Your task to perform on an android device: Go to Amazon Image 0: 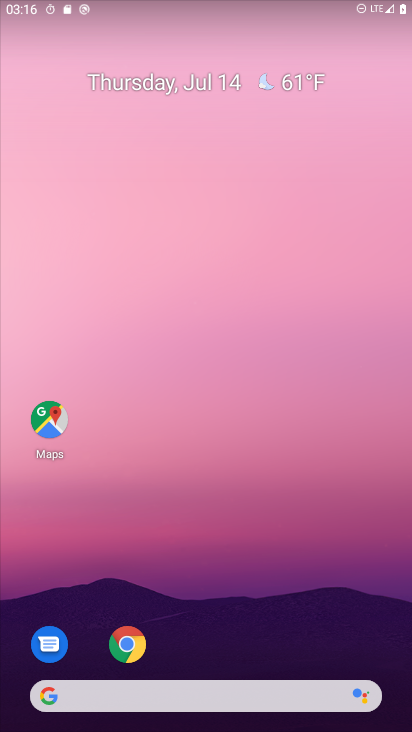
Step 0: drag from (260, 633) to (234, 133)
Your task to perform on an android device: Go to Amazon Image 1: 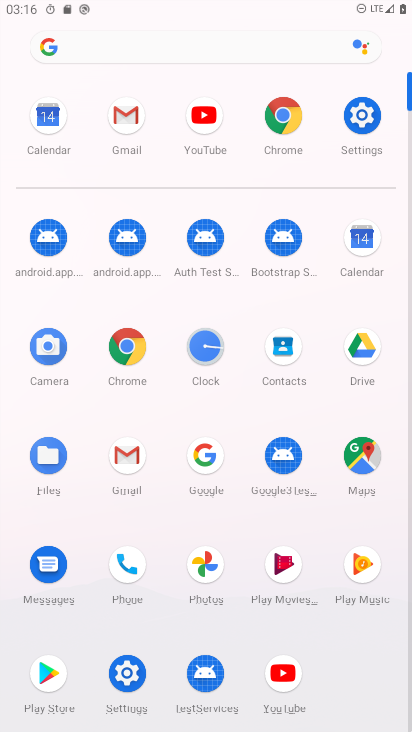
Step 1: click (287, 110)
Your task to perform on an android device: Go to Amazon Image 2: 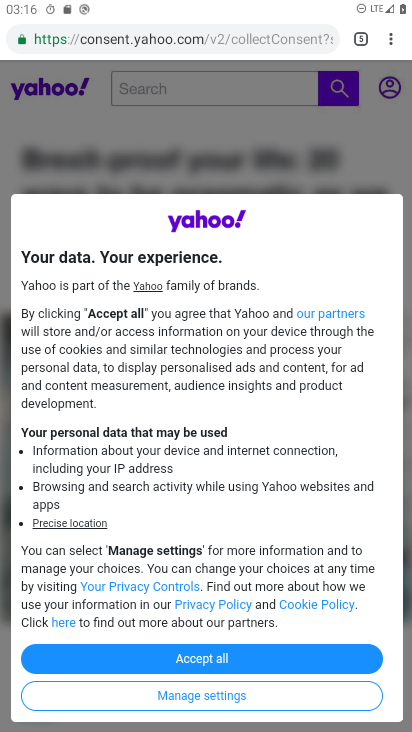
Step 2: click (181, 33)
Your task to perform on an android device: Go to Amazon Image 3: 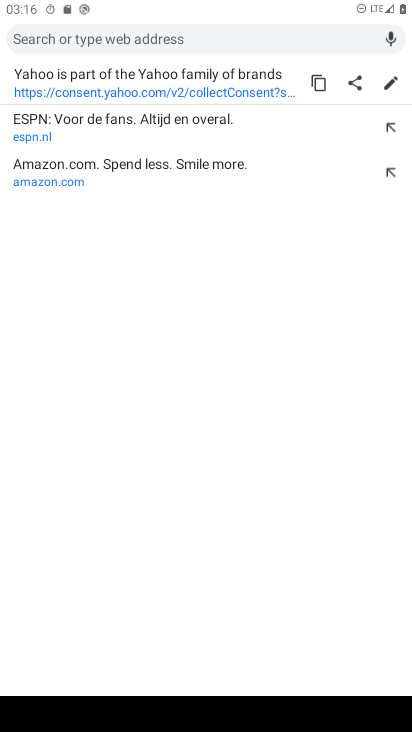
Step 3: click (44, 179)
Your task to perform on an android device: Go to Amazon Image 4: 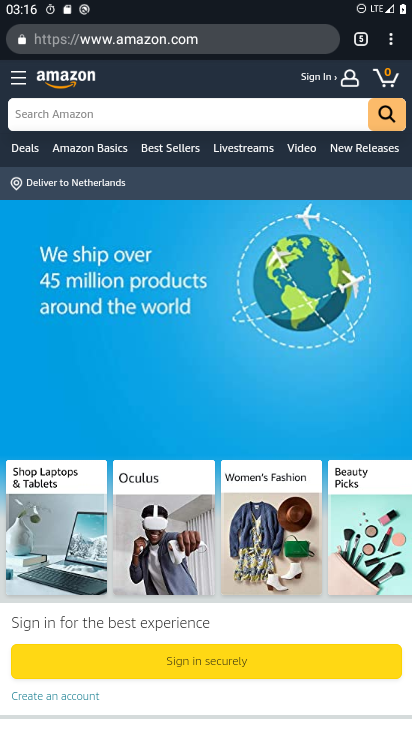
Step 4: task complete